Your task to perform on an android device: open device folders in google photos Image 0: 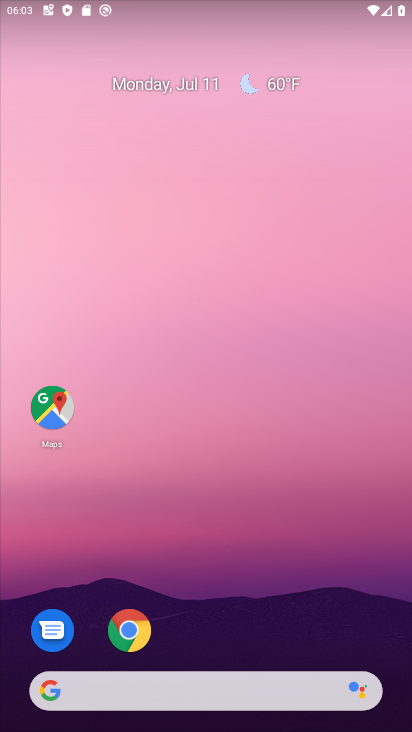
Step 0: drag from (194, 596) to (201, 173)
Your task to perform on an android device: open device folders in google photos Image 1: 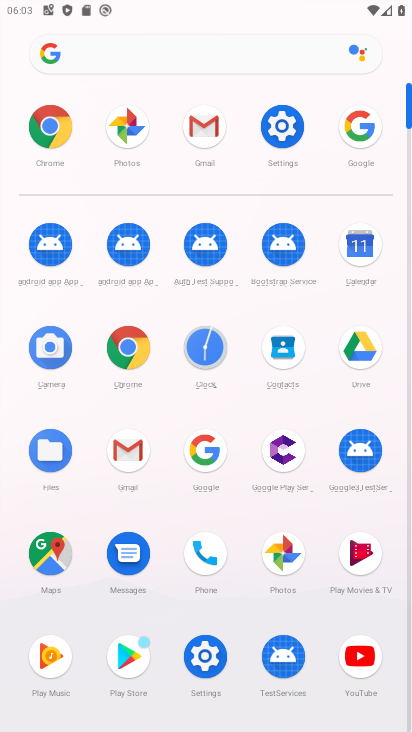
Step 1: click (284, 563)
Your task to perform on an android device: open device folders in google photos Image 2: 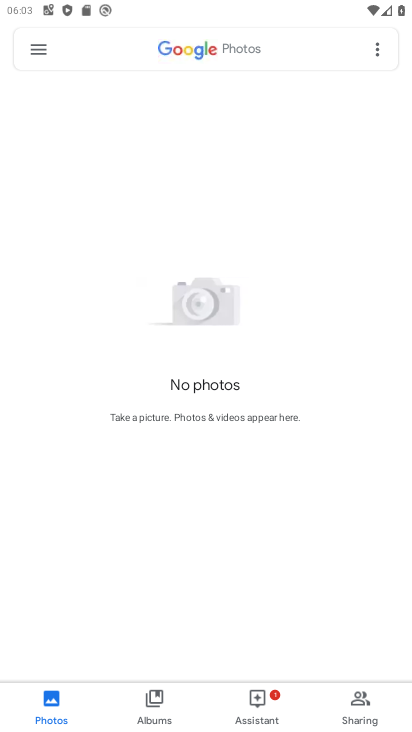
Step 2: click (24, 47)
Your task to perform on an android device: open device folders in google photos Image 3: 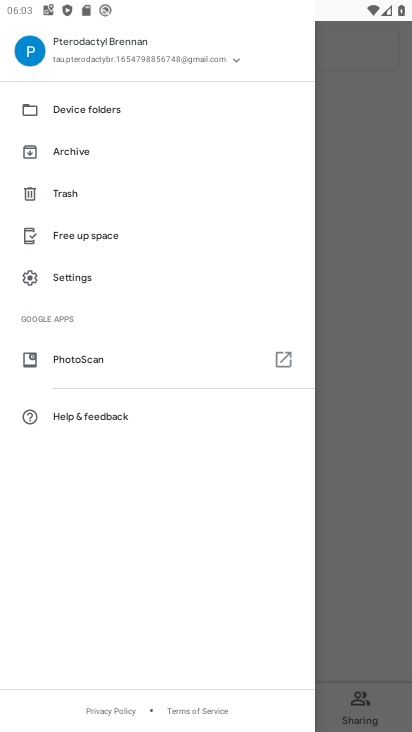
Step 3: click (37, 51)
Your task to perform on an android device: open device folders in google photos Image 4: 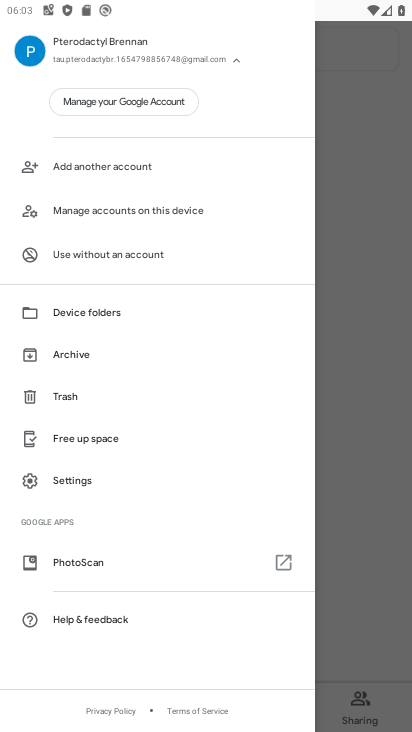
Step 4: click (75, 309)
Your task to perform on an android device: open device folders in google photos Image 5: 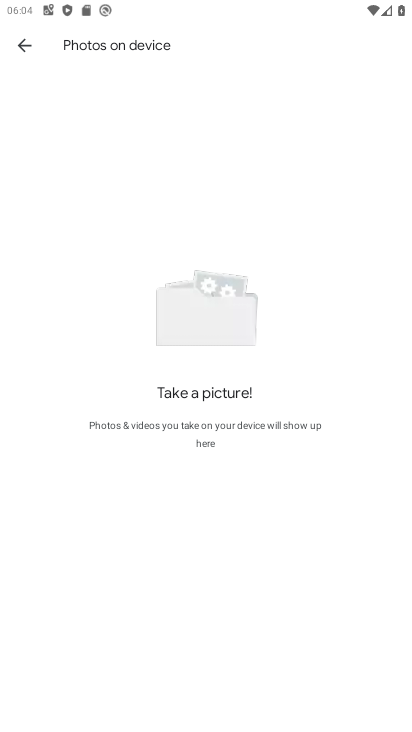
Step 5: task complete